Your task to perform on an android device: set the stopwatch Image 0: 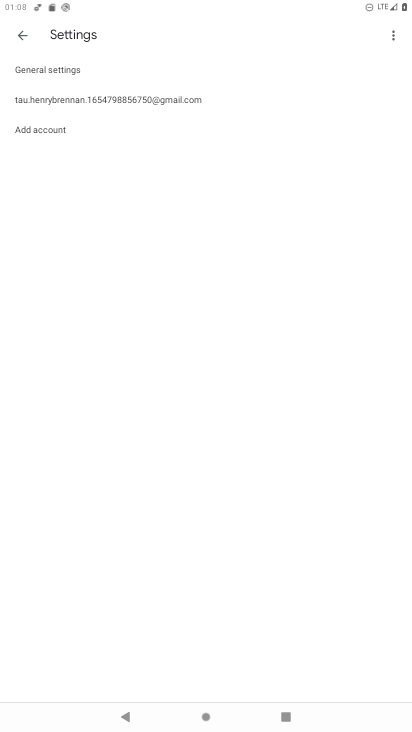
Step 0: press home button
Your task to perform on an android device: set the stopwatch Image 1: 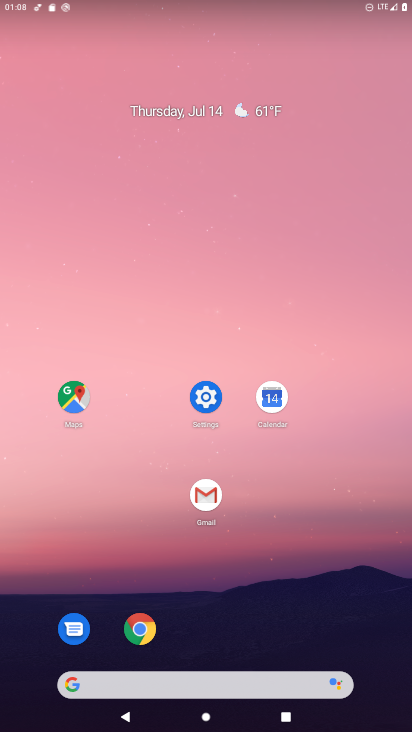
Step 1: drag from (381, 705) to (381, 96)
Your task to perform on an android device: set the stopwatch Image 2: 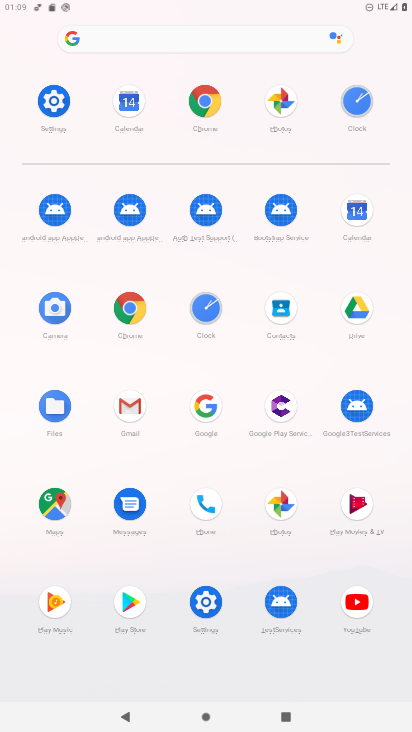
Step 2: click (355, 112)
Your task to perform on an android device: set the stopwatch Image 3: 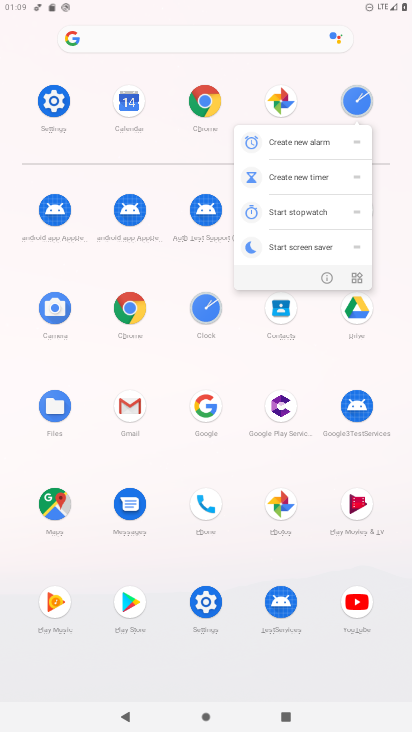
Step 3: click (355, 109)
Your task to perform on an android device: set the stopwatch Image 4: 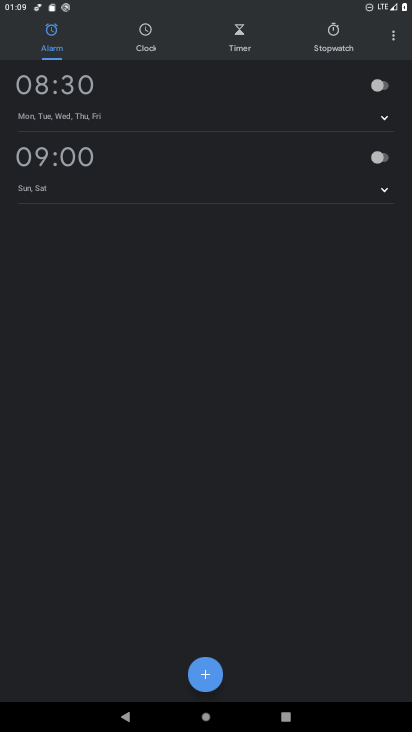
Step 4: click (341, 41)
Your task to perform on an android device: set the stopwatch Image 5: 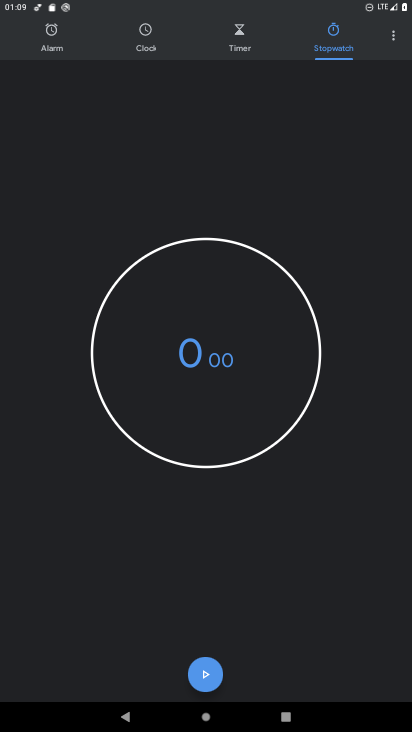
Step 5: click (216, 664)
Your task to perform on an android device: set the stopwatch Image 6: 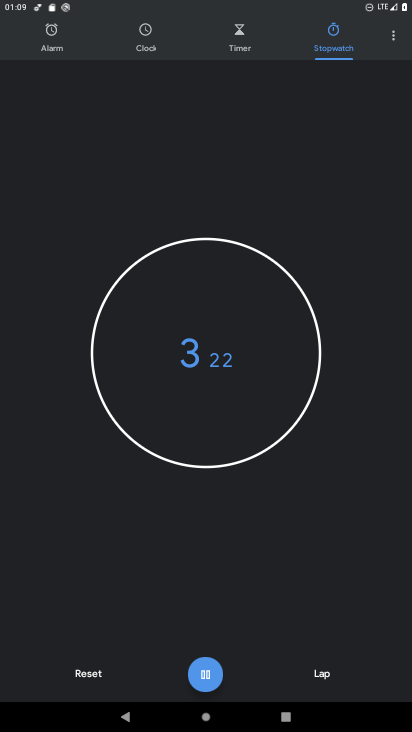
Step 6: task complete